Your task to perform on an android device: open a new tab in the chrome app Image 0: 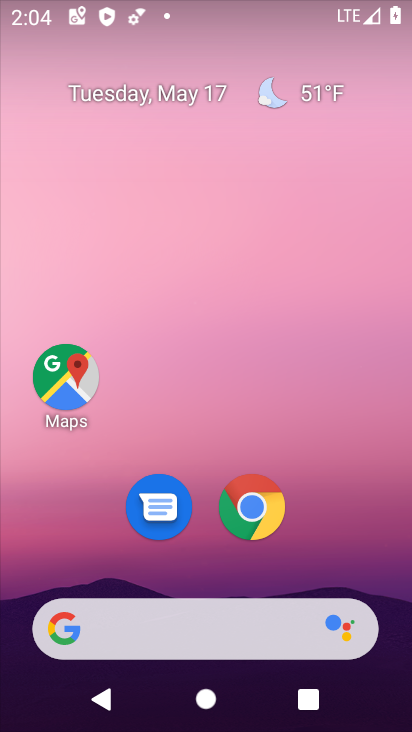
Step 0: click (248, 506)
Your task to perform on an android device: open a new tab in the chrome app Image 1: 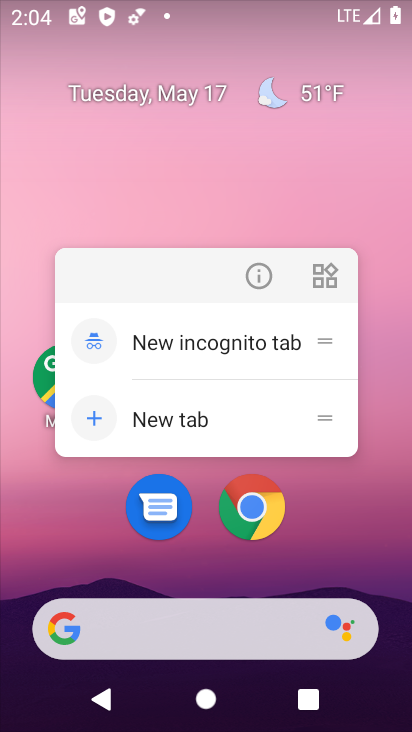
Step 1: click (248, 506)
Your task to perform on an android device: open a new tab in the chrome app Image 2: 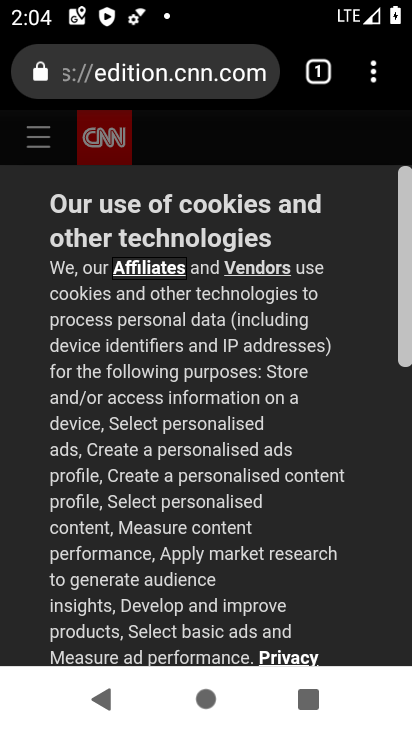
Step 2: click (378, 77)
Your task to perform on an android device: open a new tab in the chrome app Image 3: 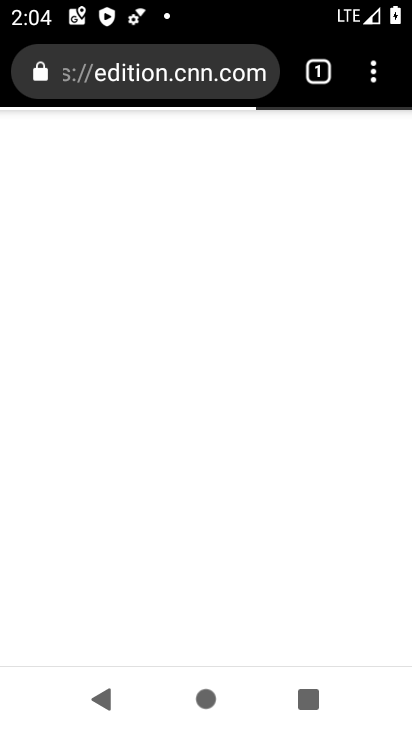
Step 3: click (379, 77)
Your task to perform on an android device: open a new tab in the chrome app Image 4: 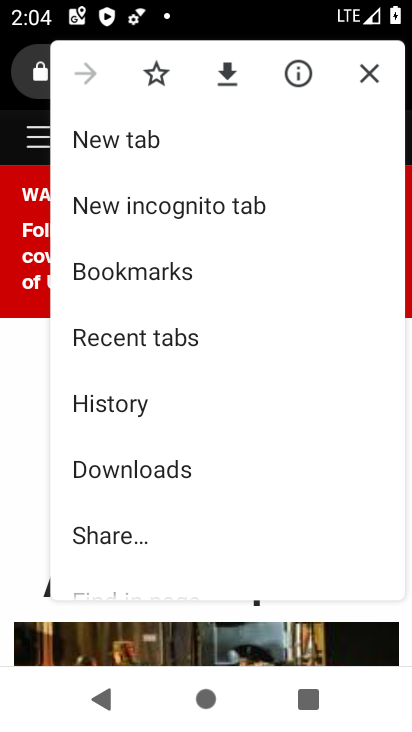
Step 4: click (194, 134)
Your task to perform on an android device: open a new tab in the chrome app Image 5: 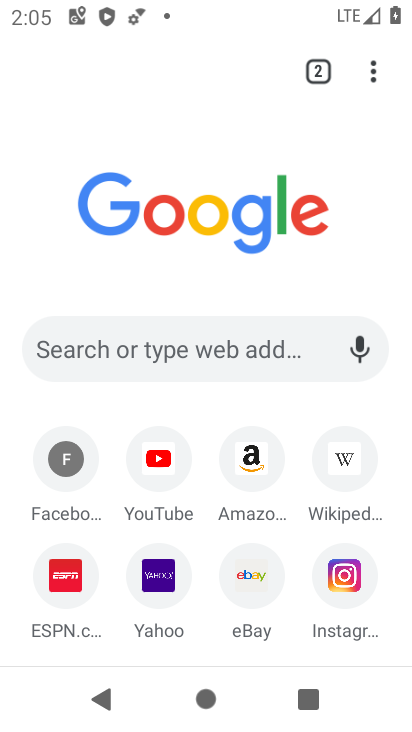
Step 5: task complete